Your task to perform on an android device: Open Google Chrome Image 0: 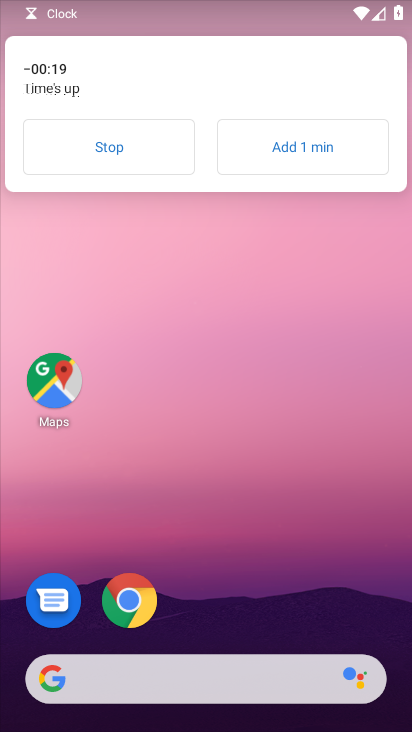
Step 0: click (132, 158)
Your task to perform on an android device: Open Google Chrome Image 1: 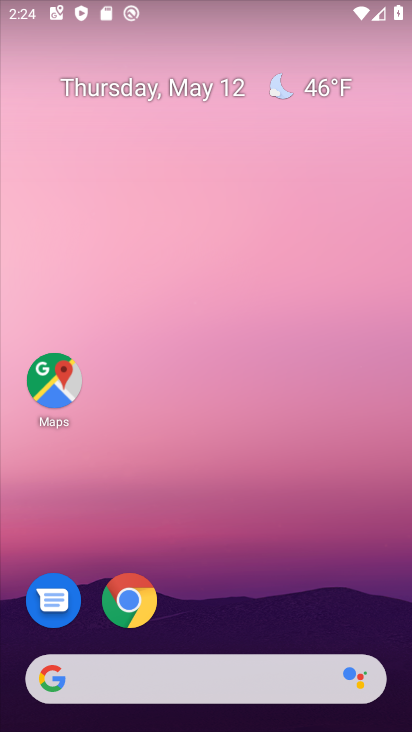
Step 1: click (133, 597)
Your task to perform on an android device: Open Google Chrome Image 2: 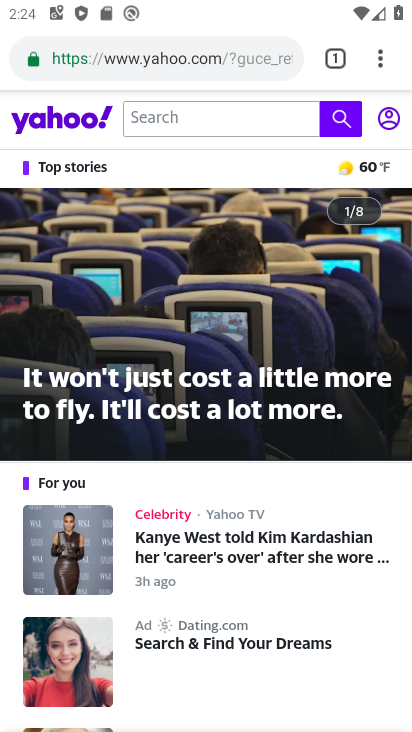
Step 2: task complete